Your task to perform on an android device: turn on bluetooth scan Image 0: 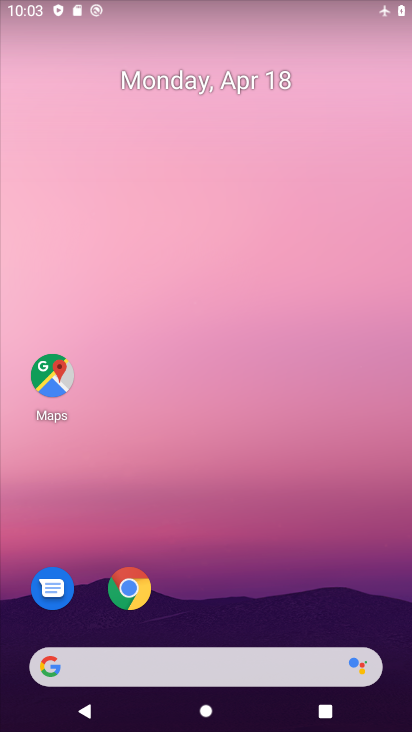
Step 0: drag from (293, 611) to (267, 133)
Your task to perform on an android device: turn on bluetooth scan Image 1: 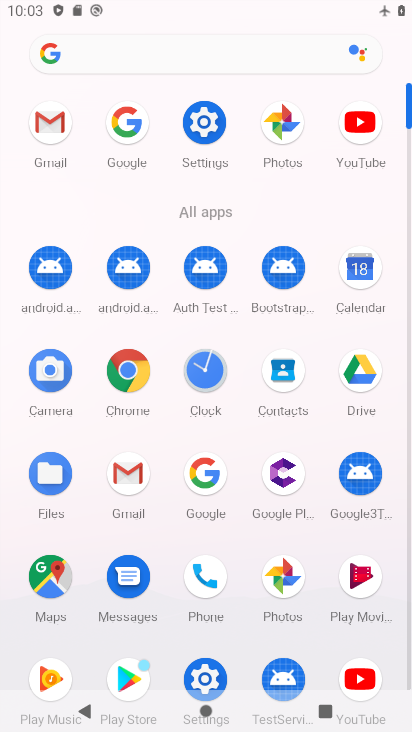
Step 1: click (204, 132)
Your task to perform on an android device: turn on bluetooth scan Image 2: 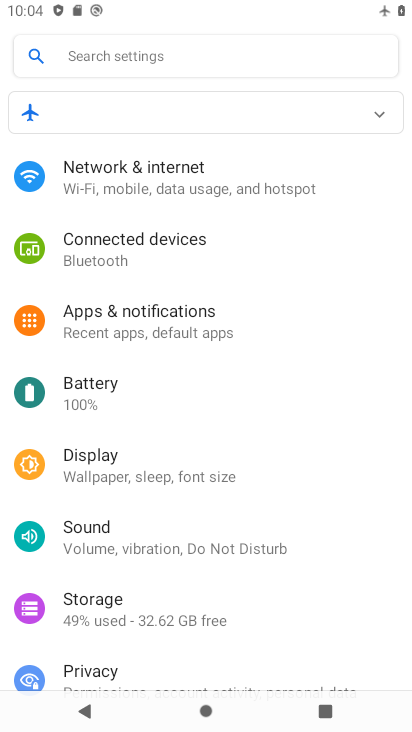
Step 2: drag from (195, 490) to (195, 386)
Your task to perform on an android device: turn on bluetooth scan Image 3: 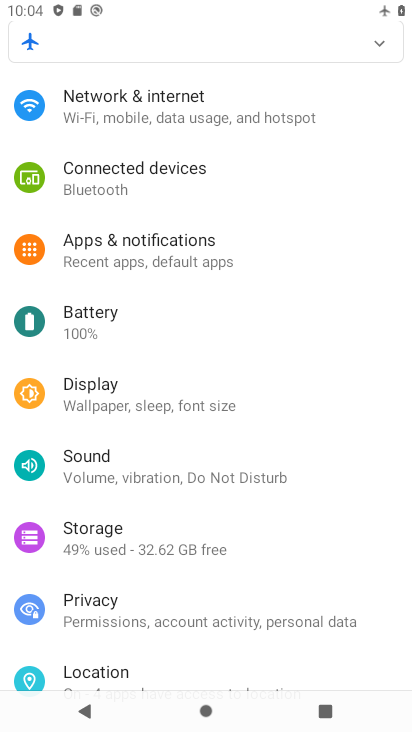
Step 3: drag from (161, 546) to (161, 458)
Your task to perform on an android device: turn on bluetooth scan Image 4: 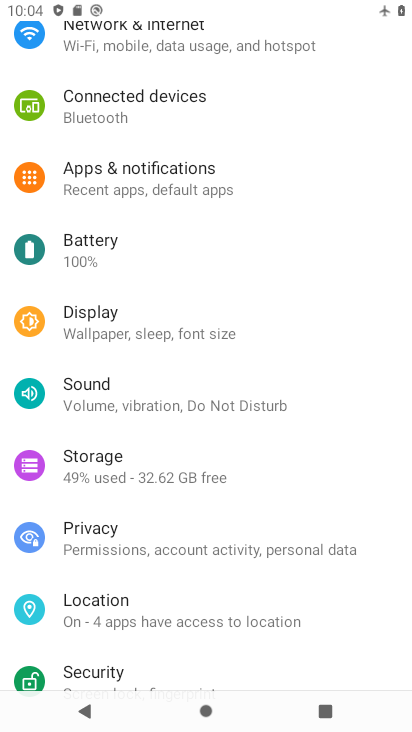
Step 4: click (91, 604)
Your task to perform on an android device: turn on bluetooth scan Image 5: 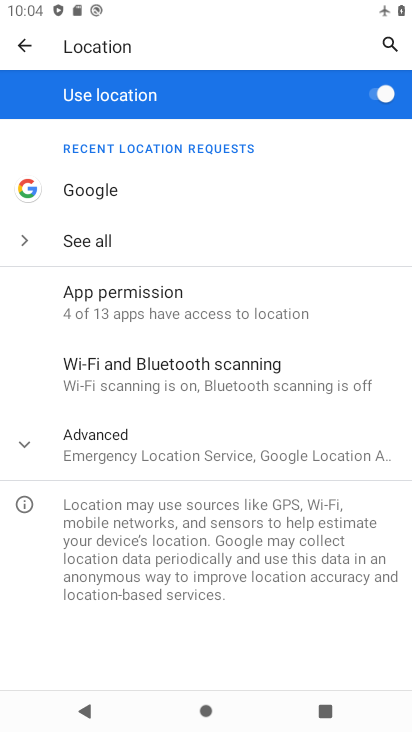
Step 5: click (159, 382)
Your task to perform on an android device: turn on bluetooth scan Image 6: 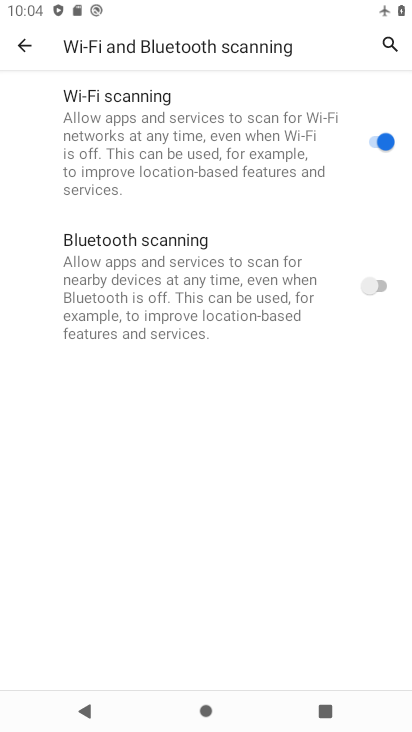
Step 6: click (329, 285)
Your task to perform on an android device: turn on bluetooth scan Image 7: 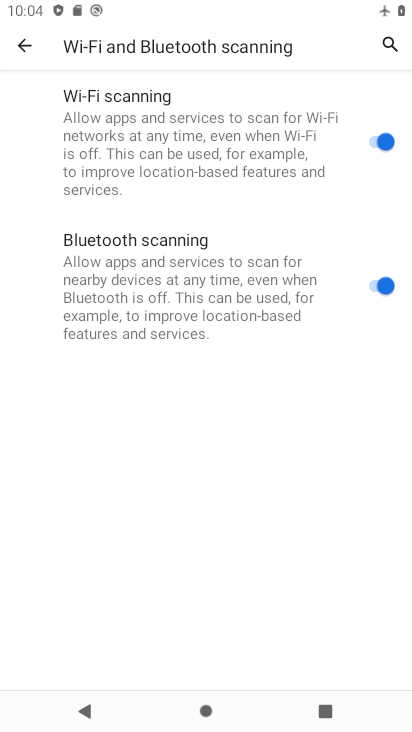
Step 7: task complete